Your task to perform on an android device: change text size in settings app Image 0: 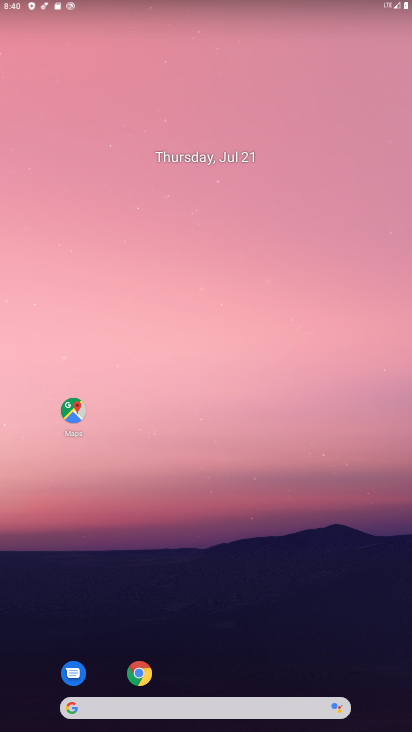
Step 0: drag from (187, 661) to (238, 188)
Your task to perform on an android device: change text size in settings app Image 1: 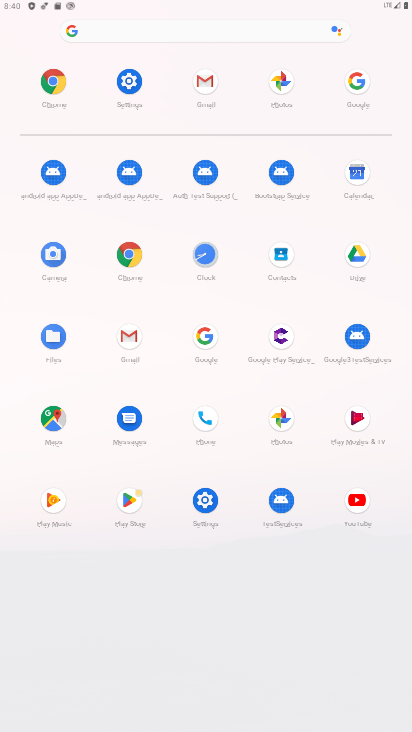
Step 1: click (138, 79)
Your task to perform on an android device: change text size in settings app Image 2: 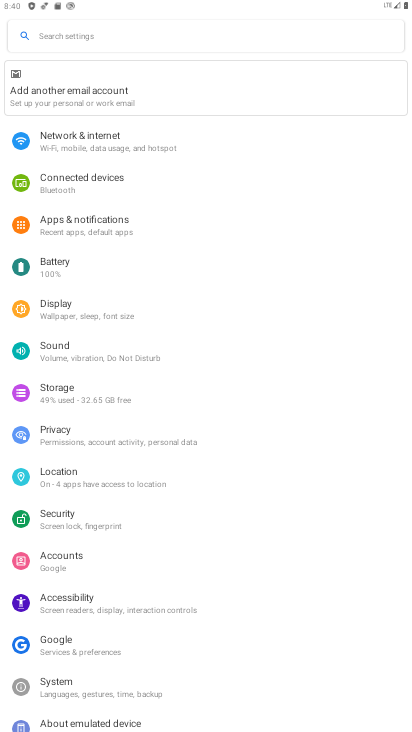
Step 2: click (121, 318)
Your task to perform on an android device: change text size in settings app Image 3: 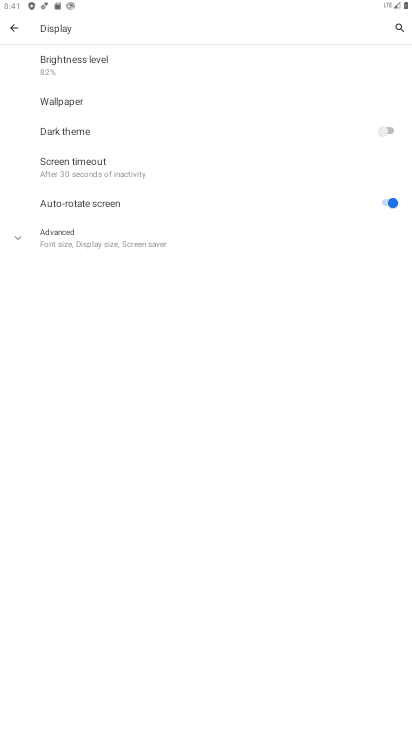
Step 3: click (57, 247)
Your task to perform on an android device: change text size in settings app Image 4: 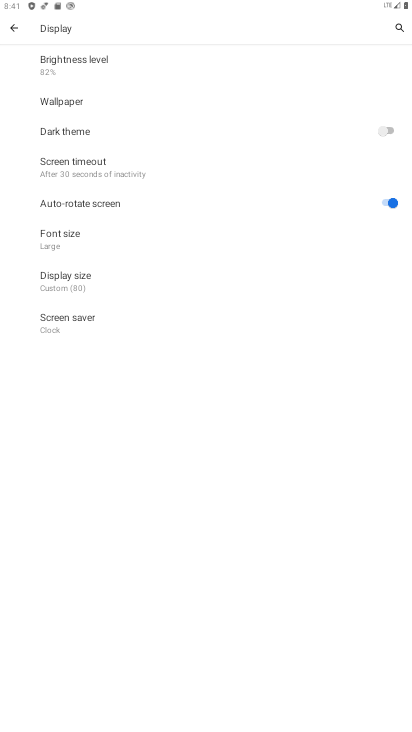
Step 4: click (89, 250)
Your task to perform on an android device: change text size in settings app Image 5: 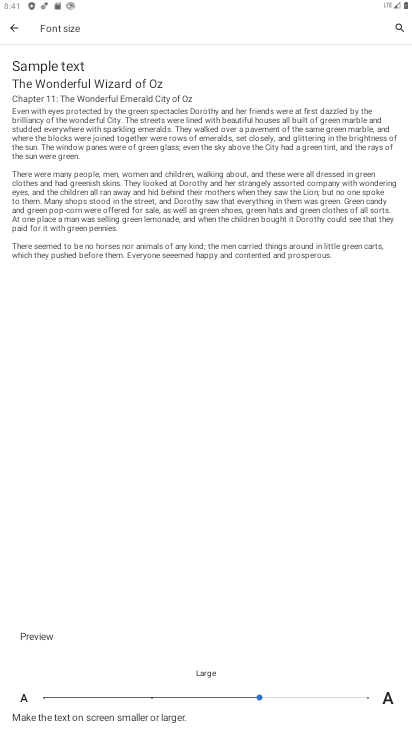
Step 5: click (359, 706)
Your task to perform on an android device: change text size in settings app Image 6: 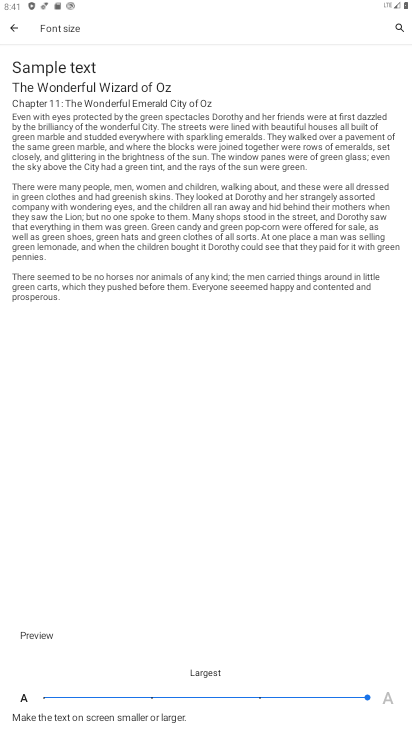
Step 6: task complete